Your task to perform on an android device: find which apps use the phone's location Image 0: 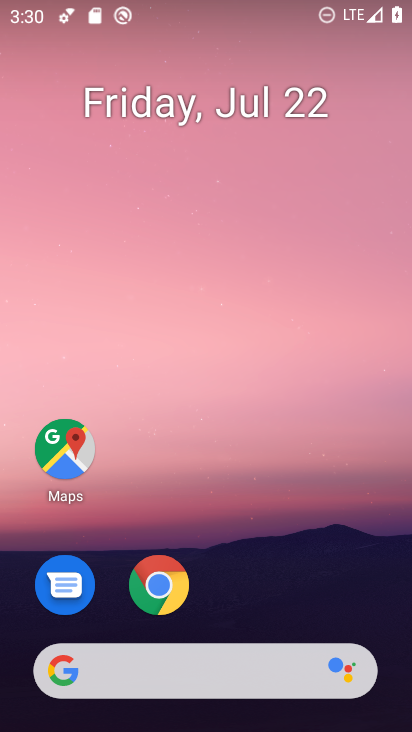
Step 0: drag from (275, 593) to (329, 48)
Your task to perform on an android device: find which apps use the phone's location Image 1: 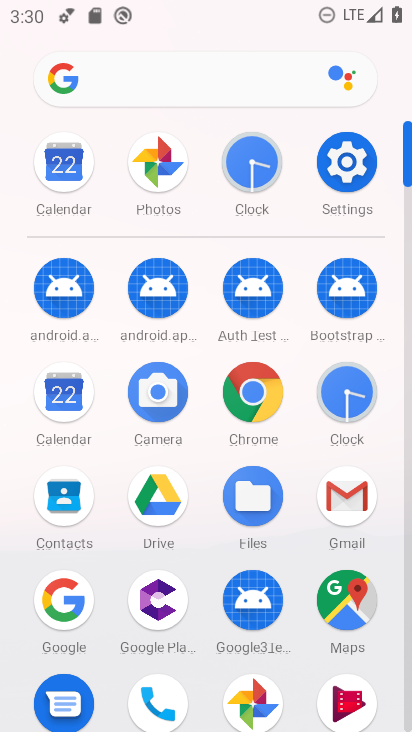
Step 1: click (352, 158)
Your task to perform on an android device: find which apps use the phone's location Image 2: 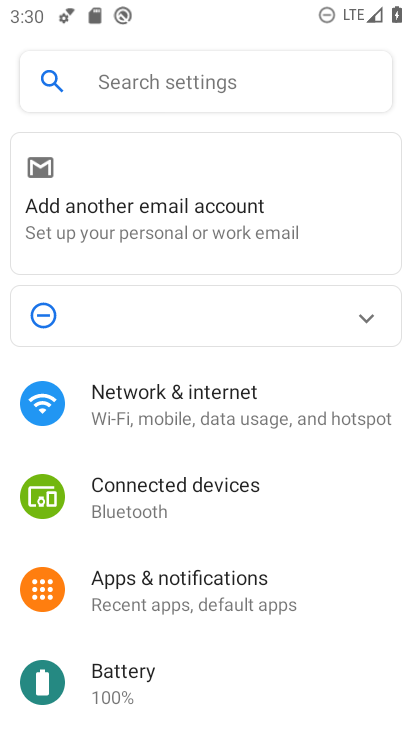
Step 2: drag from (221, 516) to (263, 153)
Your task to perform on an android device: find which apps use the phone's location Image 3: 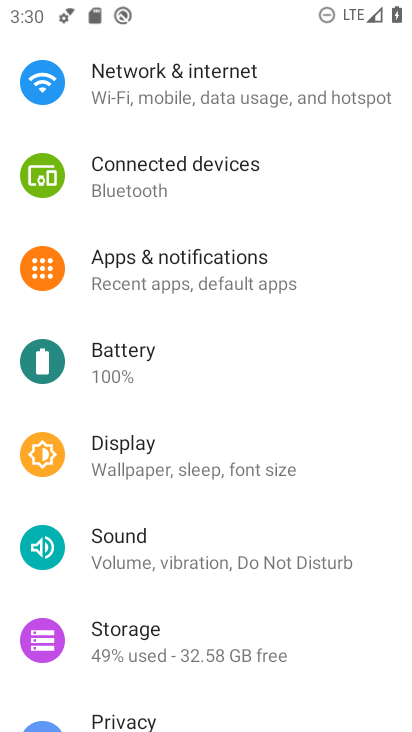
Step 3: drag from (210, 516) to (247, 145)
Your task to perform on an android device: find which apps use the phone's location Image 4: 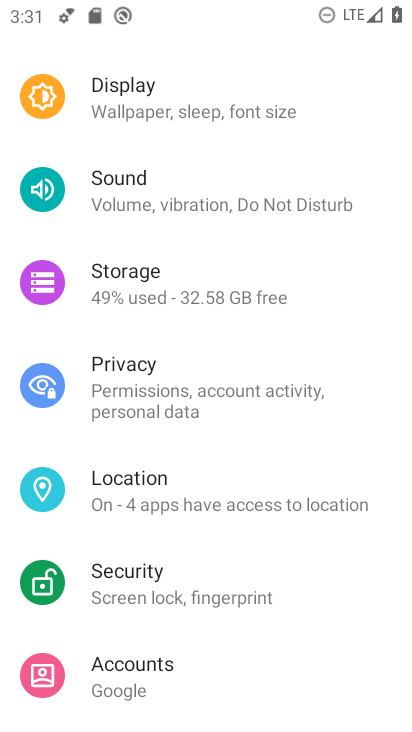
Step 4: click (195, 498)
Your task to perform on an android device: find which apps use the phone's location Image 5: 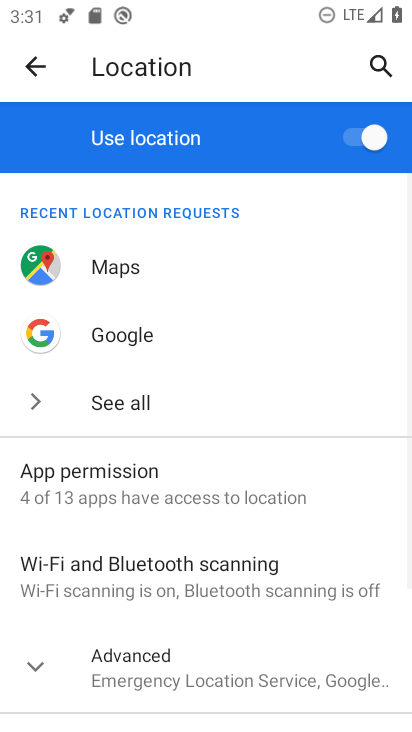
Step 5: click (153, 484)
Your task to perform on an android device: find which apps use the phone's location Image 6: 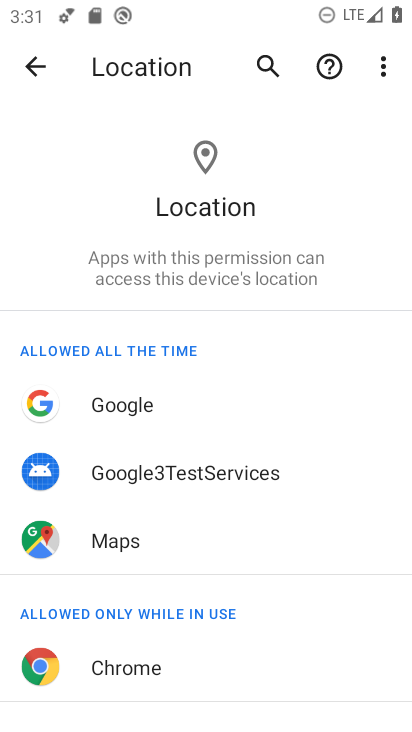
Step 6: task complete